Your task to perform on an android device: open app "ColorNote Notepad Notes" (install if not already installed) and go to login screen Image 0: 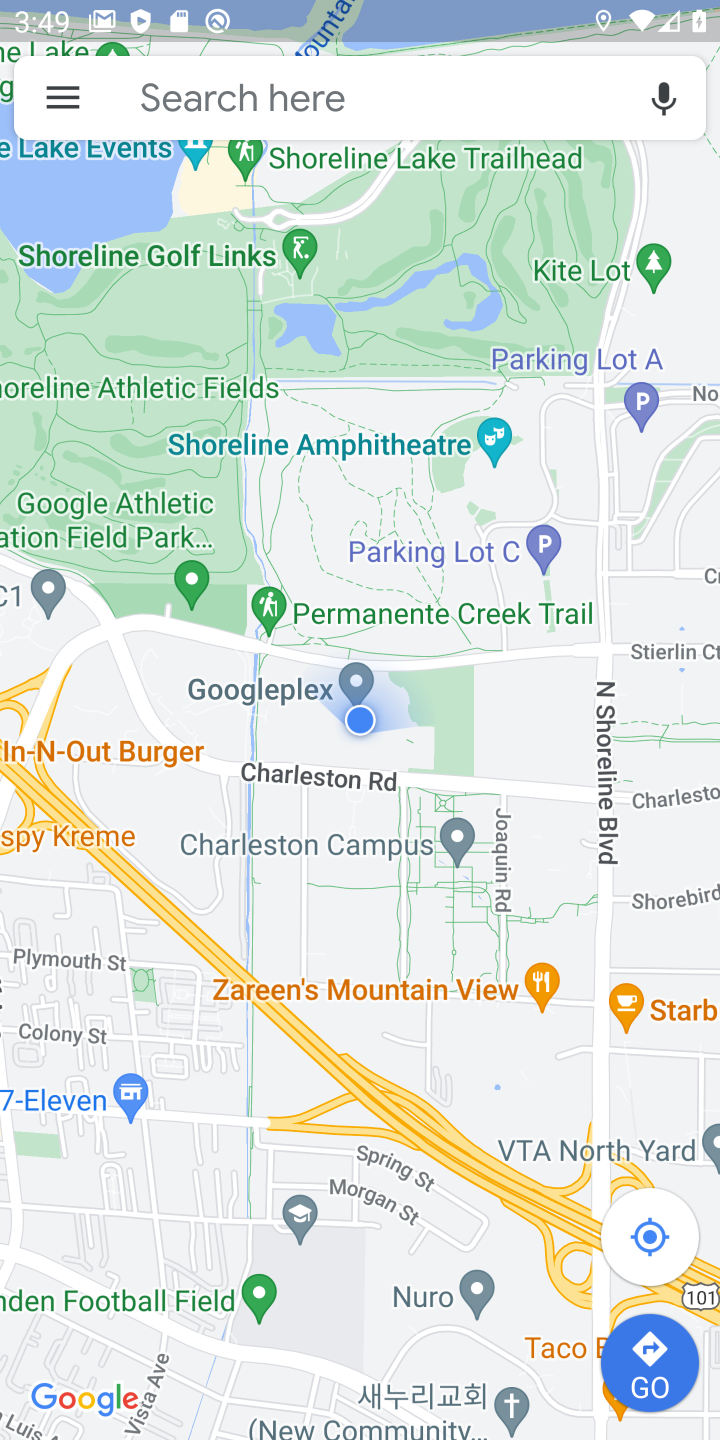
Step 0: press home button
Your task to perform on an android device: open app "ColorNote Notepad Notes" (install if not already installed) and go to login screen Image 1: 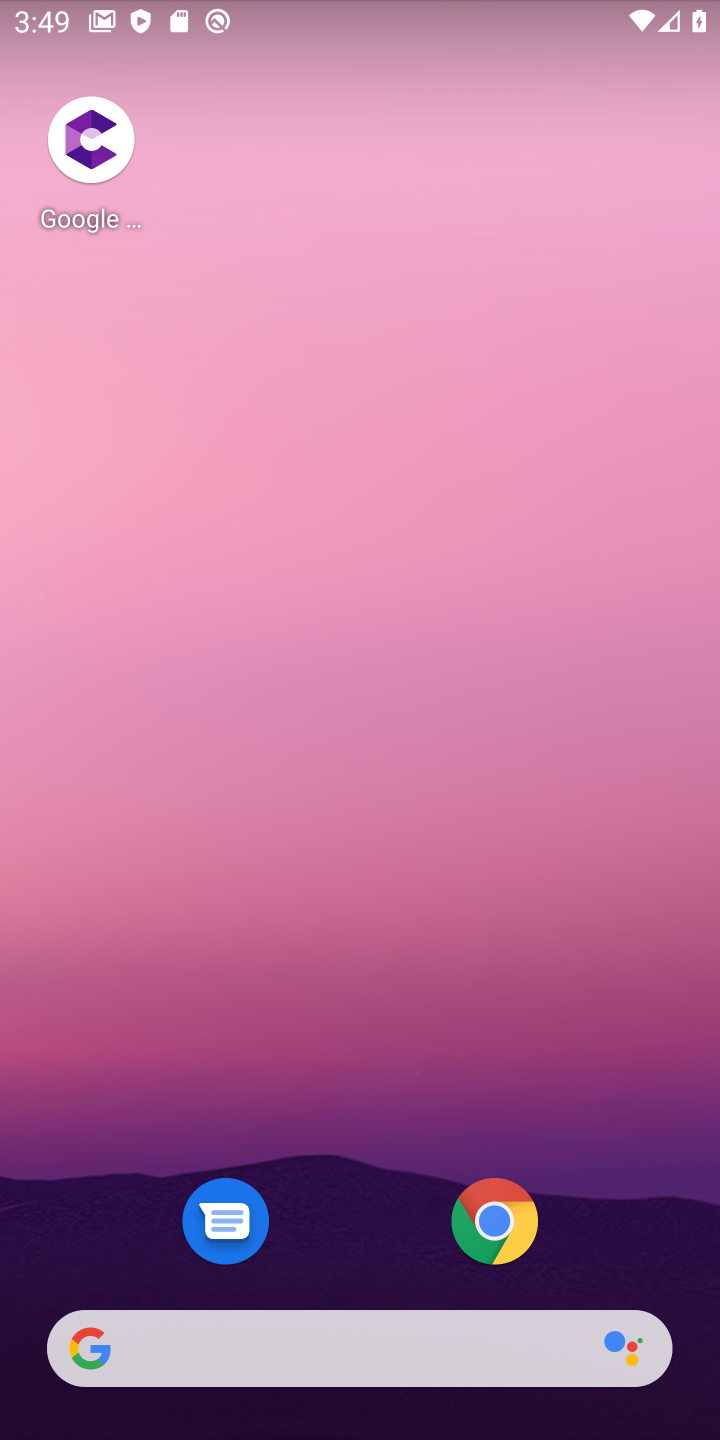
Step 1: drag from (390, 17) to (317, 157)
Your task to perform on an android device: open app "ColorNote Notepad Notes" (install if not already installed) and go to login screen Image 2: 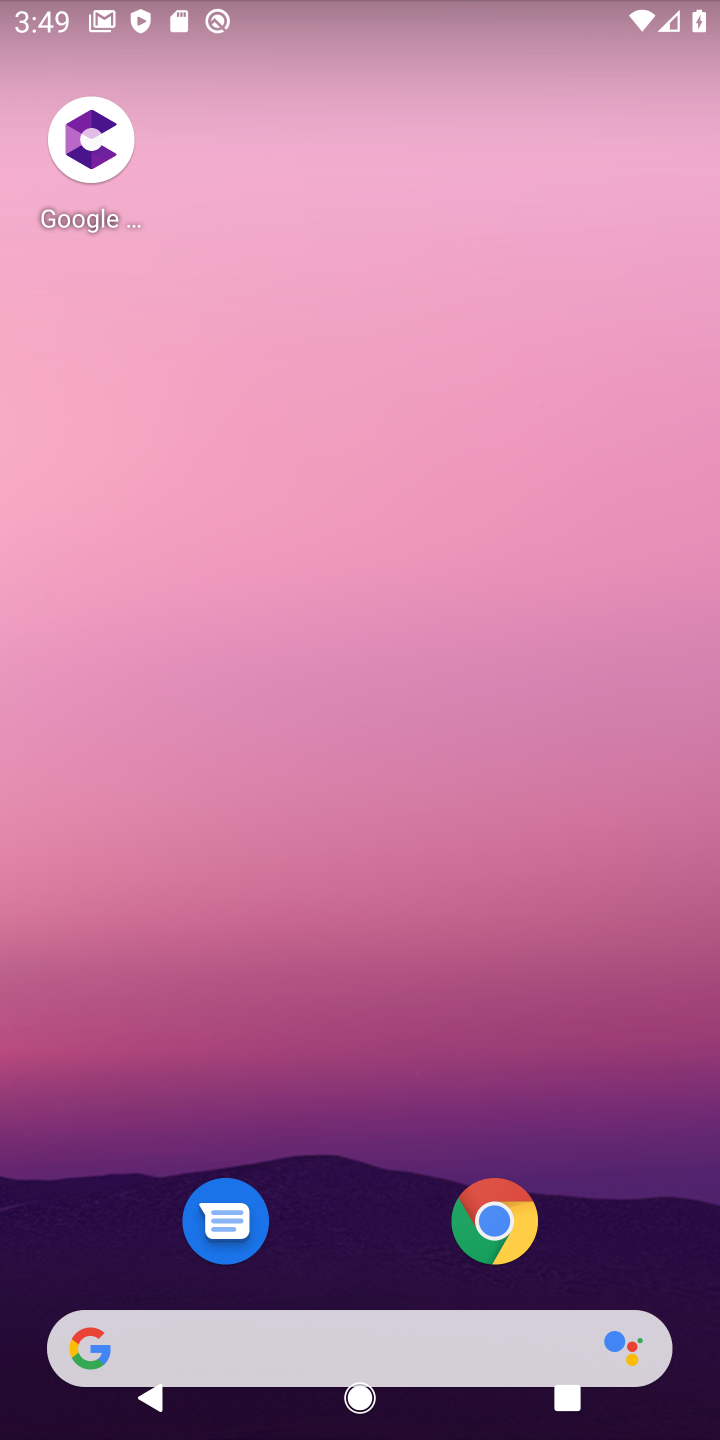
Step 2: drag from (352, 1236) to (442, 300)
Your task to perform on an android device: open app "ColorNote Notepad Notes" (install if not already installed) and go to login screen Image 3: 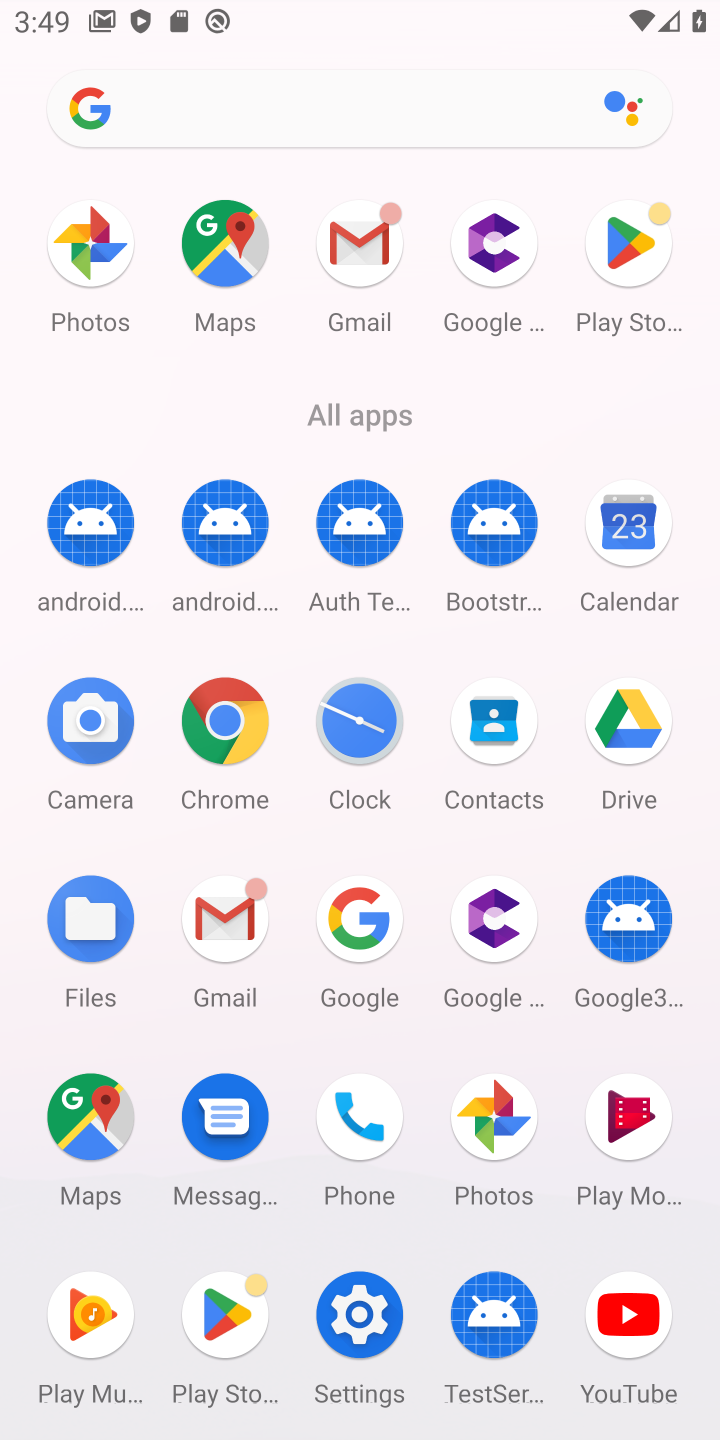
Step 3: click (628, 304)
Your task to perform on an android device: open app "ColorNote Notepad Notes" (install if not already installed) and go to login screen Image 4: 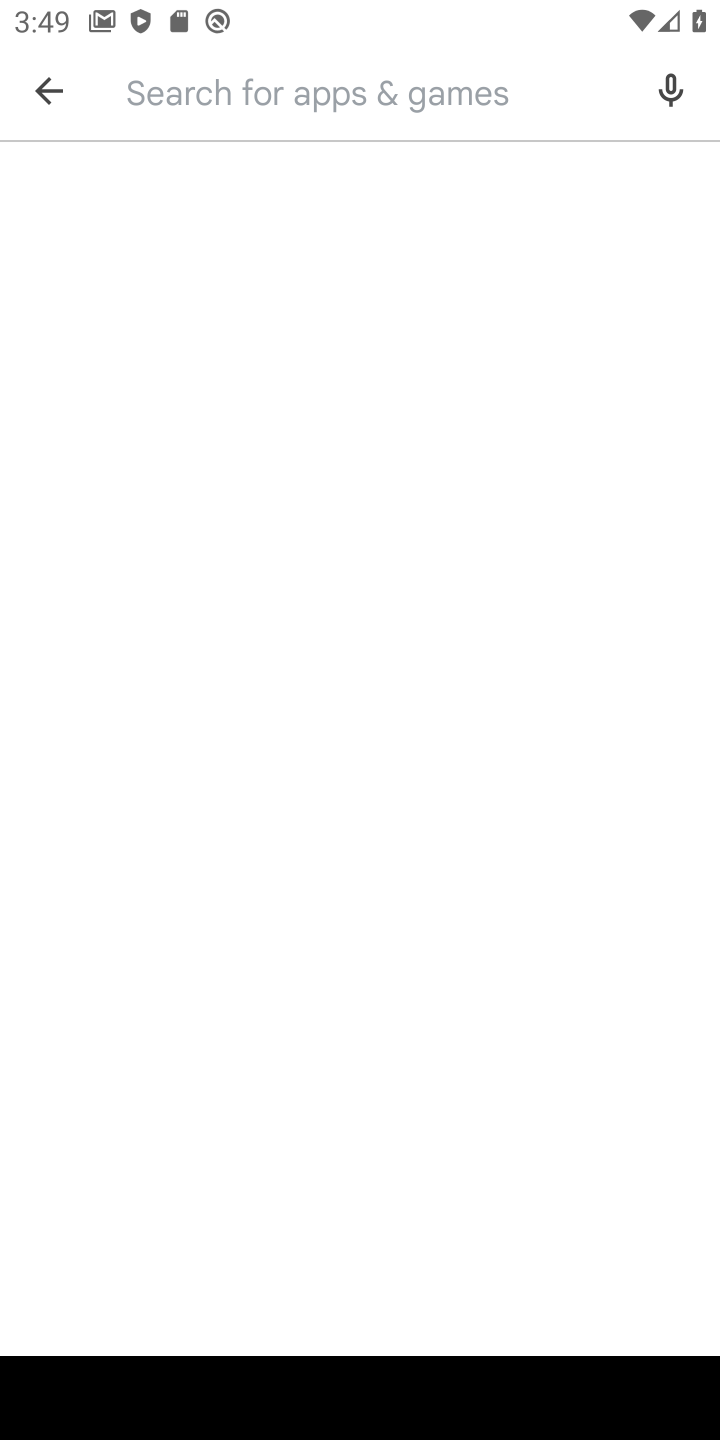
Step 4: type "ColorNote Notepad Notes""
Your task to perform on an android device: open app "ColorNote Notepad Notes" (install if not already installed) and go to login screen Image 5: 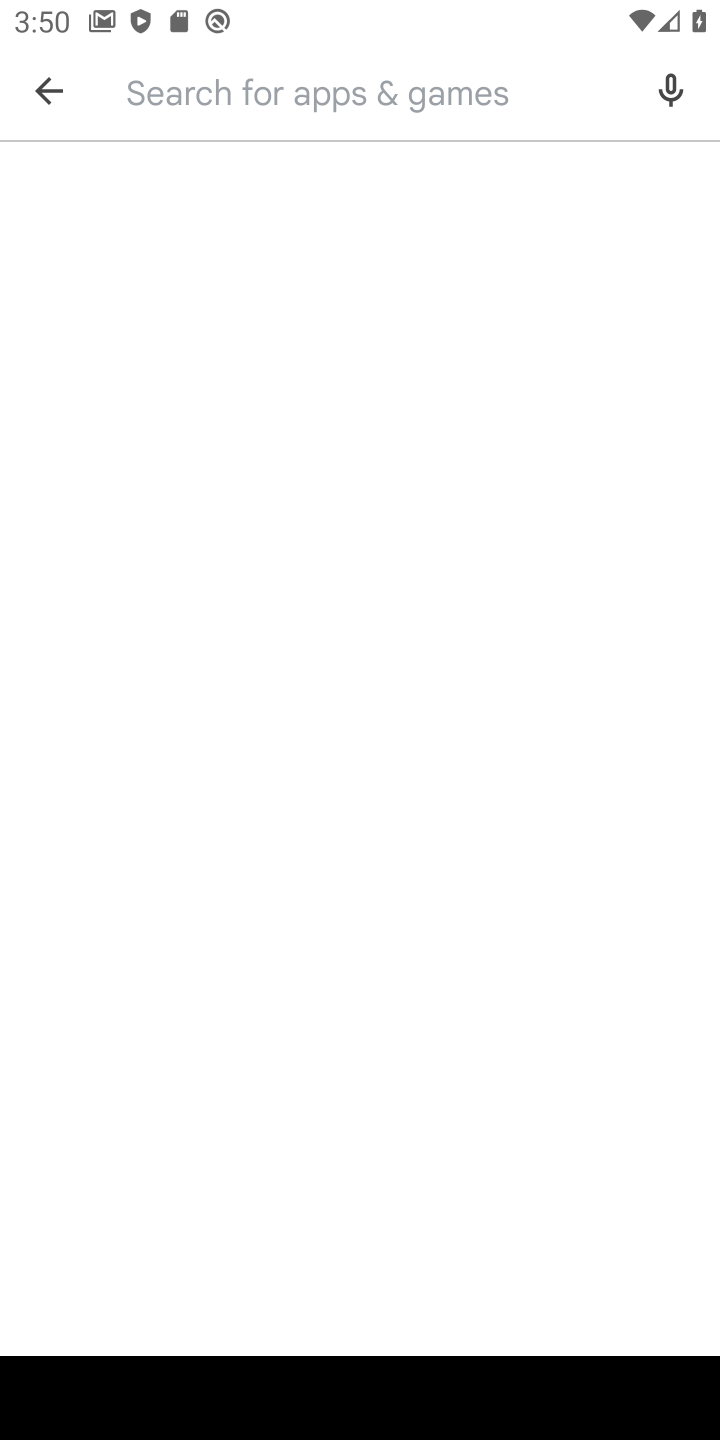
Step 5: type "ColorNote Notepad Notes""
Your task to perform on an android device: open app "ColorNote Notepad Notes" (install if not already installed) and go to login screen Image 6: 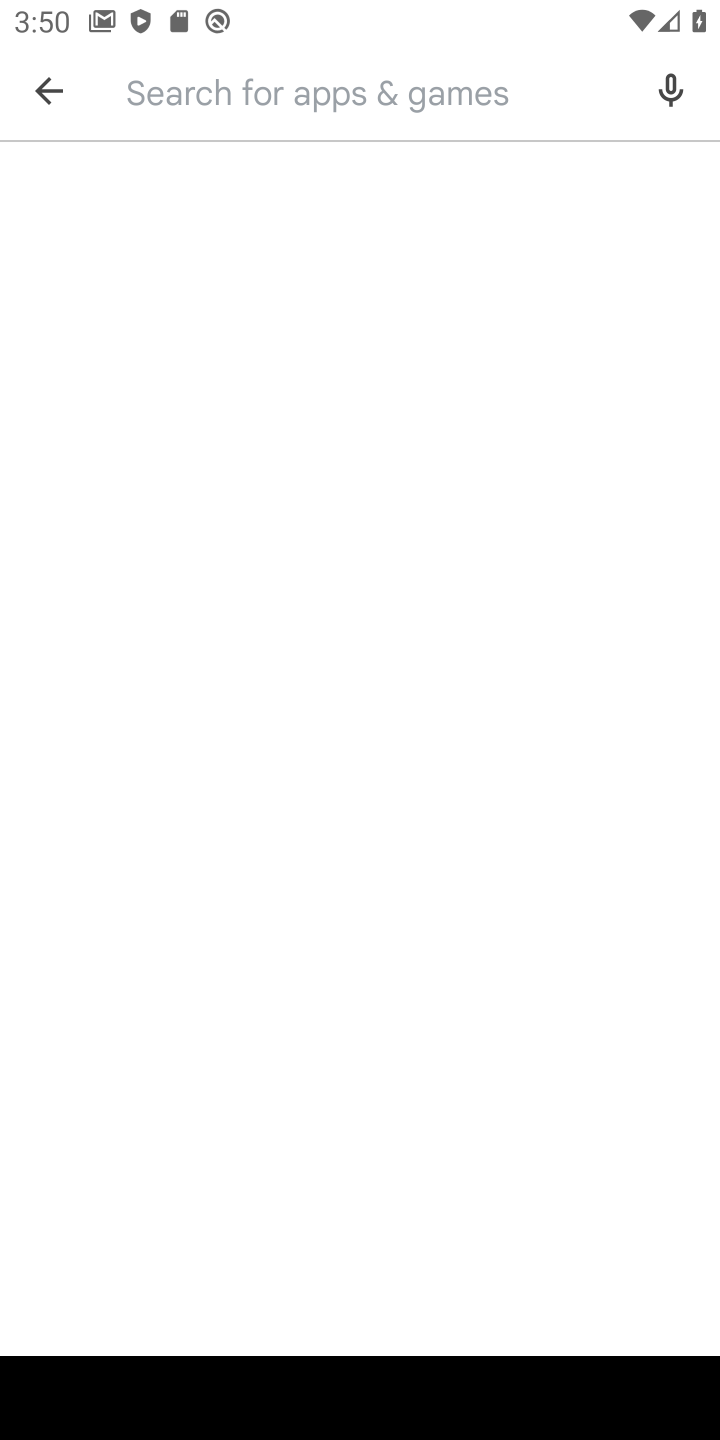
Step 6: task complete